Your task to perform on an android device: clear all cookies in the chrome app Image 0: 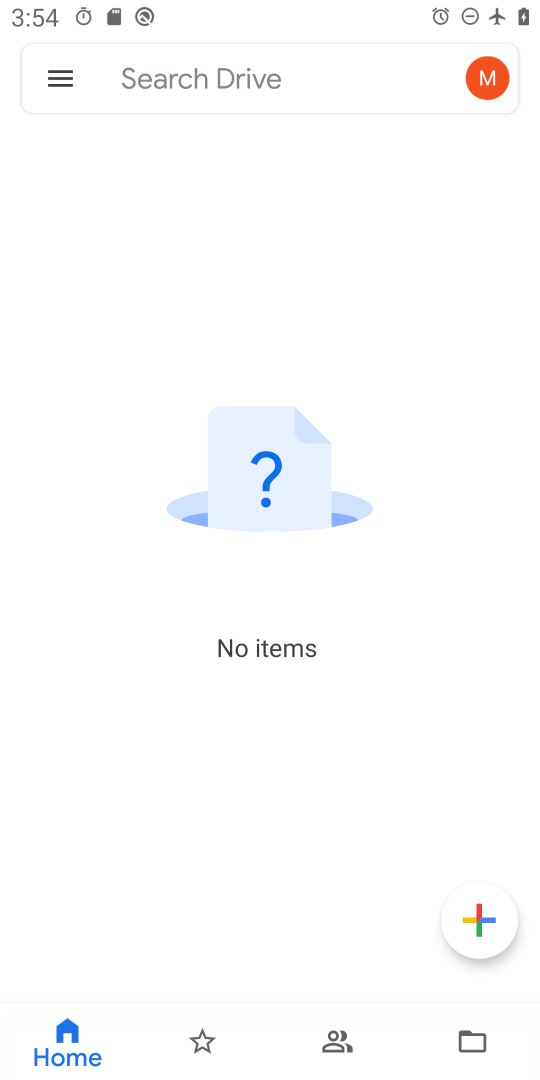
Step 0: press home button
Your task to perform on an android device: clear all cookies in the chrome app Image 1: 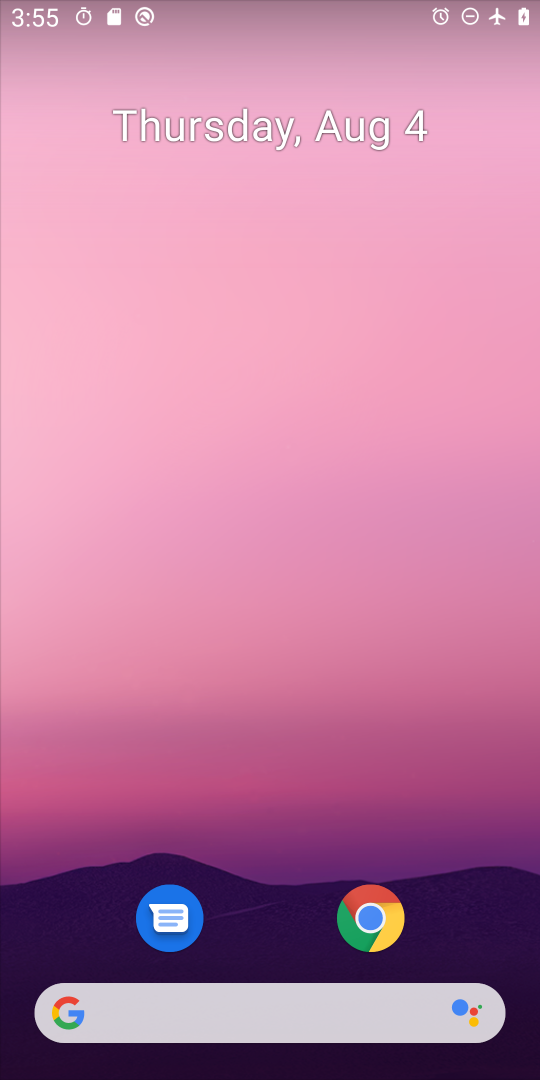
Step 1: click (350, 888)
Your task to perform on an android device: clear all cookies in the chrome app Image 2: 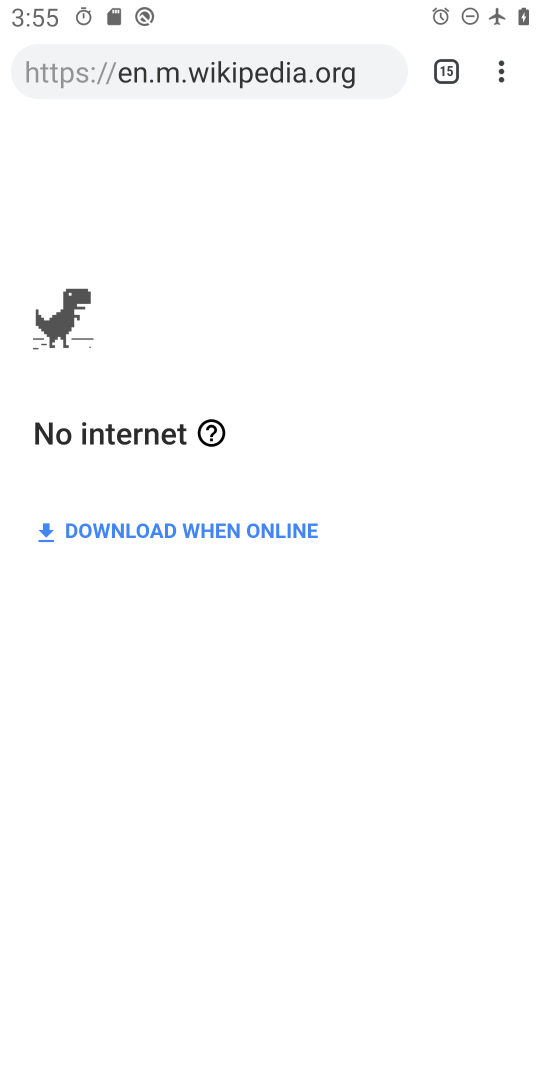
Step 2: click (493, 56)
Your task to perform on an android device: clear all cookies in the chrome app Image 3: 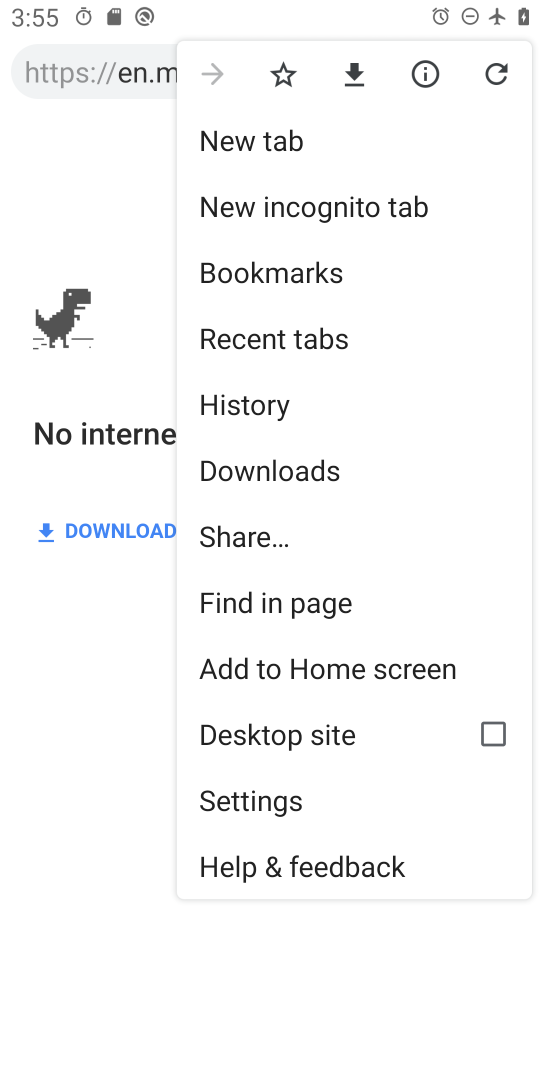
Step 3: click (240, 417)
Your task to perform on an android device: clear all cookies in the chrome app Image 4: 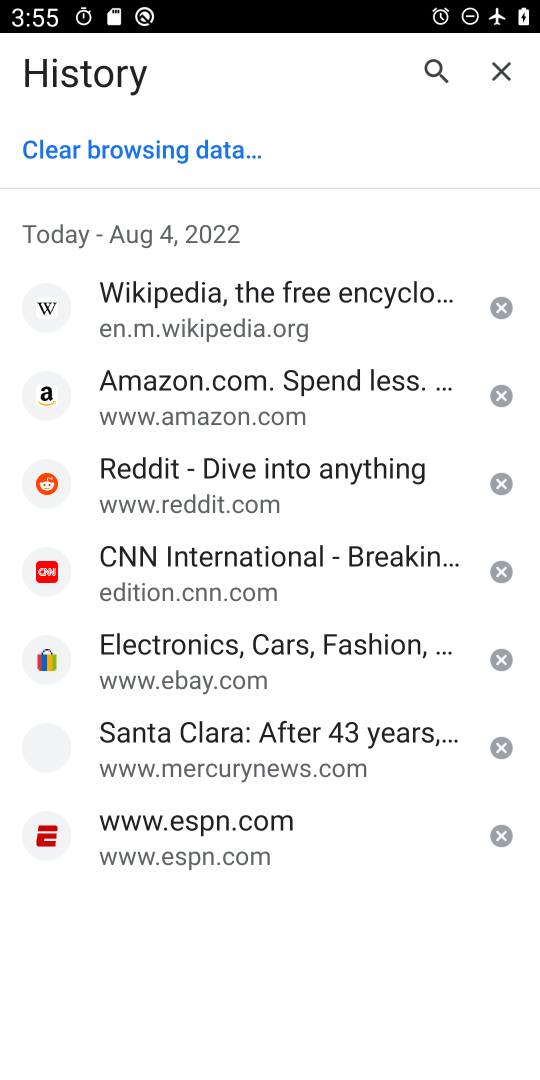
Step 4: click (138, 165)
Your task to perform on an android device: clear all cookies in the chrome app Image 5: 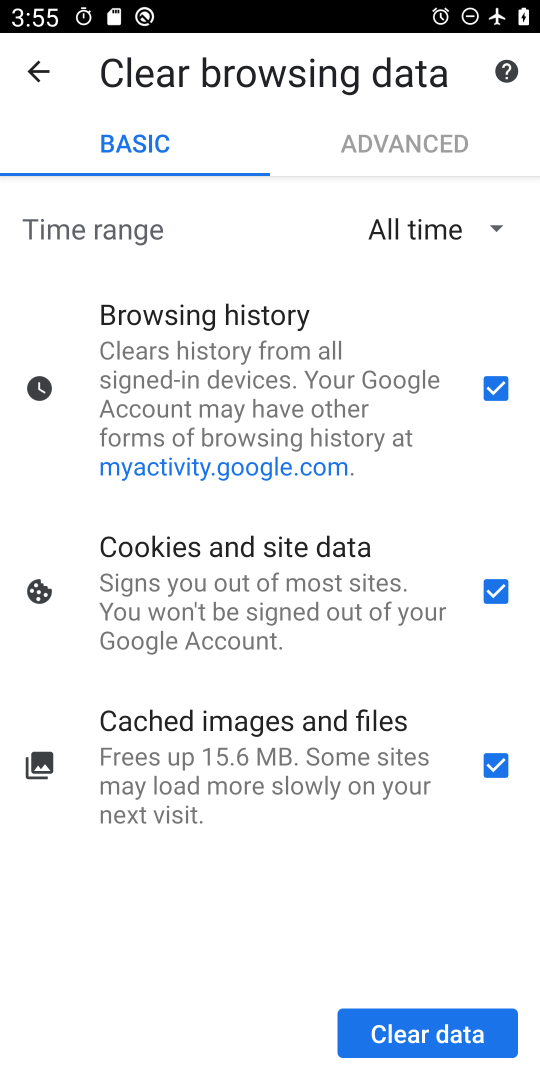
Step 5: click (401, 1026)
Your task to perform on an android device: clear all cookies in the chrome app Image 6: 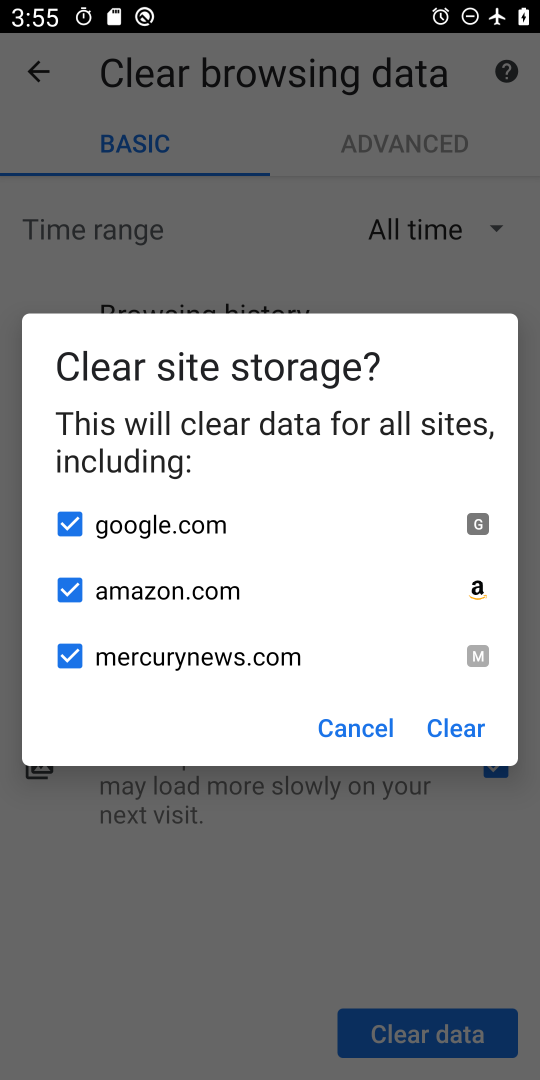
Step 6: click (441, 717)
Your task to perform on an android device: clear all cookies in the chrome app Image 7: 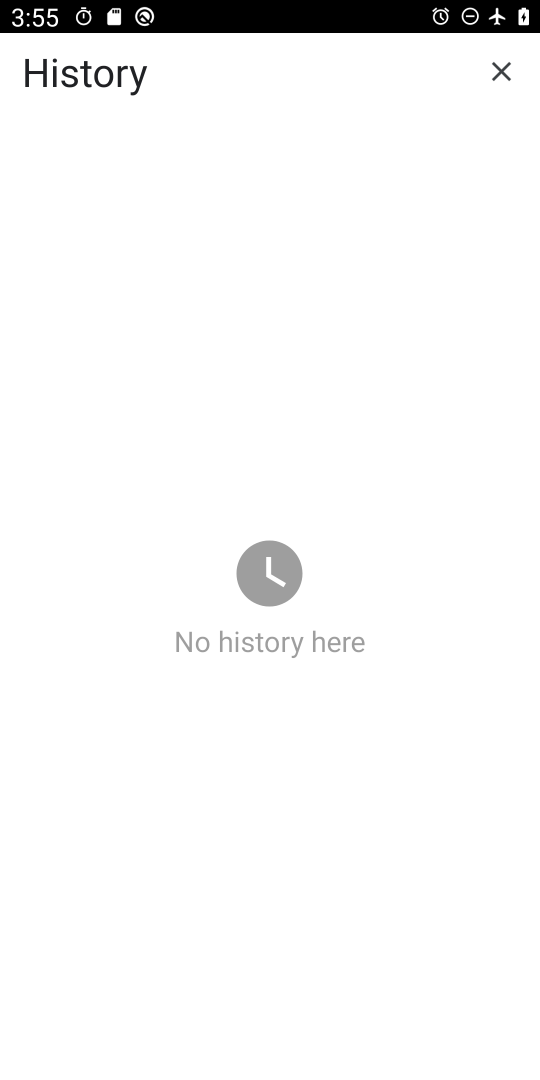
Step 7: task complete